Your task to perform on an android device: turn on sleep mode Image 0: 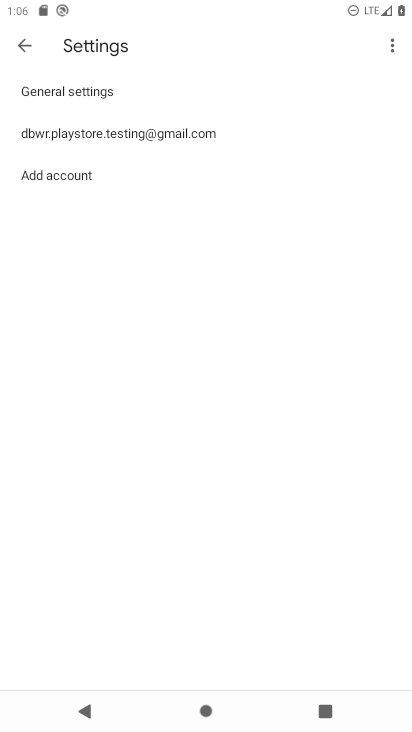
Step 0: press home button
Your task to perform on an android device: turn on sleep mode Image 1: 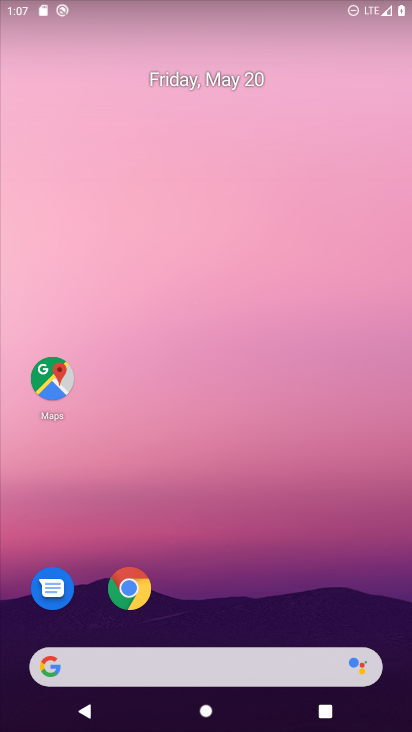
Step 1: drag from (382, 606) to (207, 0)
Your task to perform on an android device: turn on sleep mode Image 2: 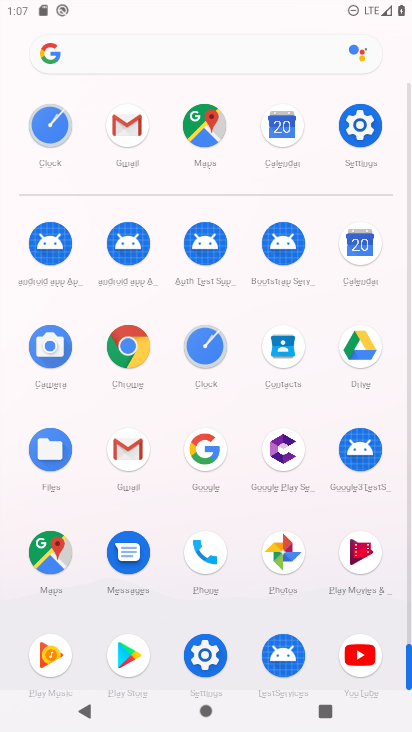
Step 2: click (202, 657)
Your task to perform on an android device: turn on sleep mode Image 3: 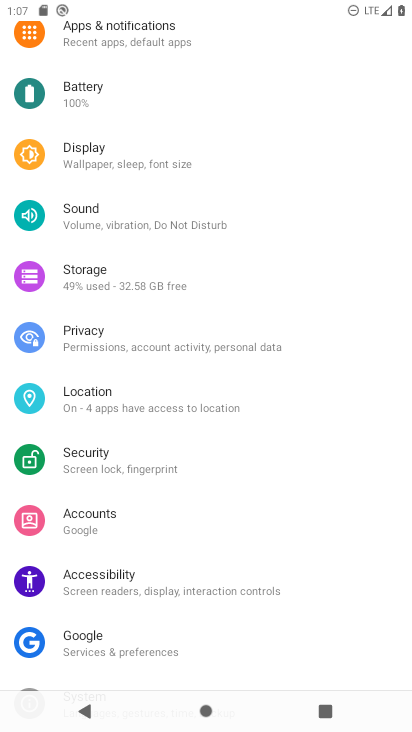
Step 3: click (122, 151)
Your task to perform on an android device: turn on sleep mode Image 4: 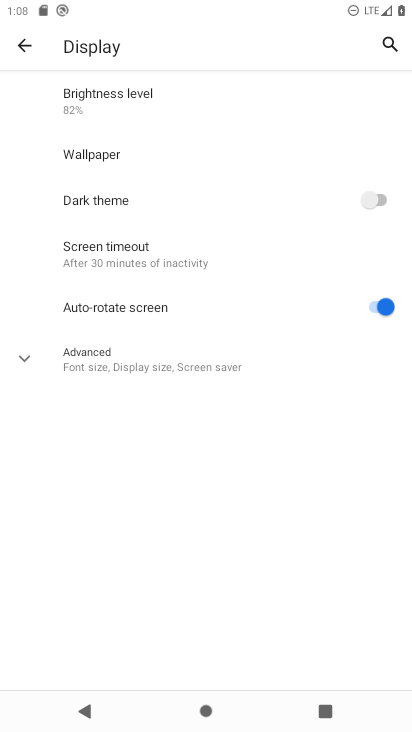
Step 4: click (26, 357)
Your task to perform on an android device: turn on sleep mode Image 5: 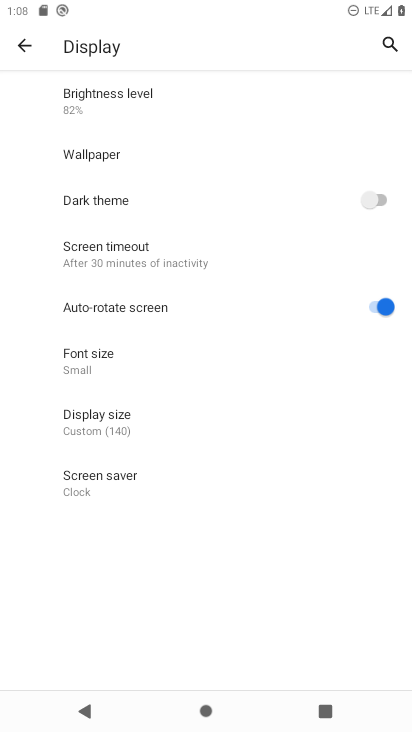
Step 5: task complete